Your task to perform on an android device: Go to privacy settings Image 0: 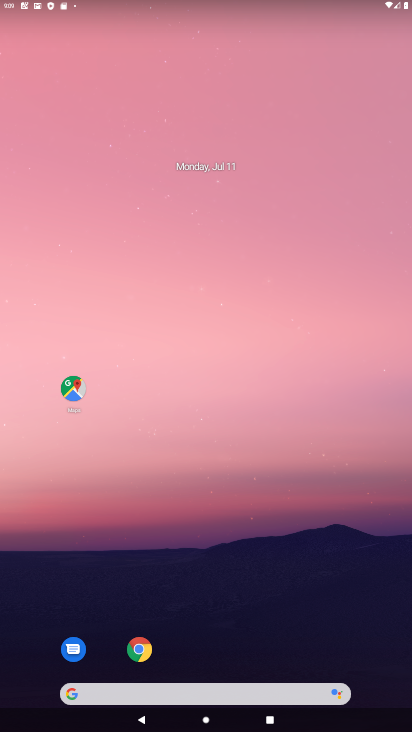
Step 0: drag from (240, 672) to (356, 14)
Your task to perform on an android device: Go to privacy settings Image 1: 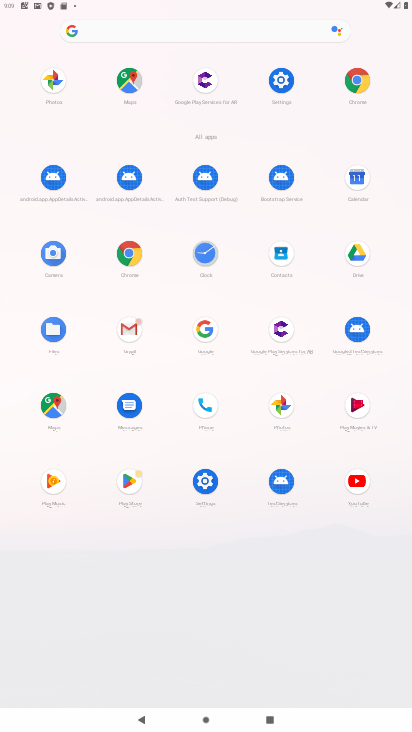
Step 1: click (291, 83)
Your task to perform on an android device: Go to privacy settings Image 2: 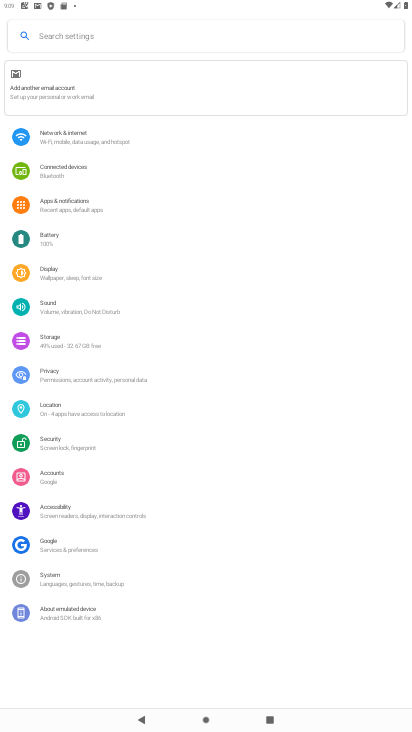
Step 2: drag from (89, 306) to (20, 295)
Your task to perform on an android device: Go to privacy settings Image 3: 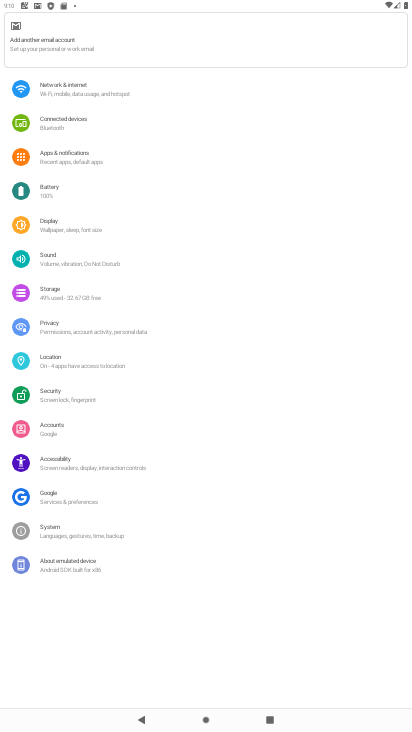
Step 3: click (63, 327)
Your task to perform on an android device: Go to privacy settings Image 4: 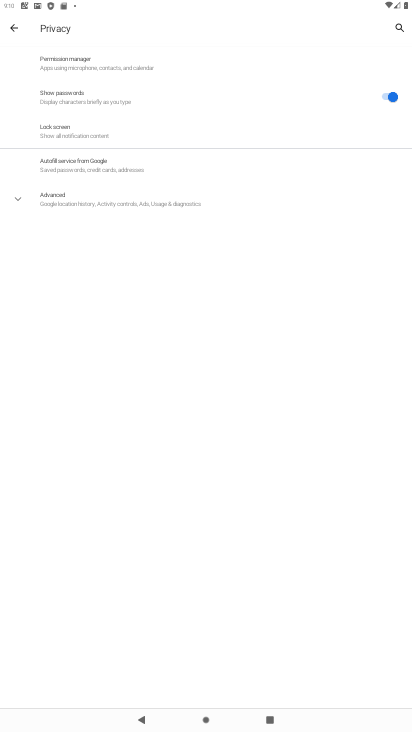
Step 4: task complete